Your task to perform on an android device: turn on notifications settings in the gmail app Image 0: 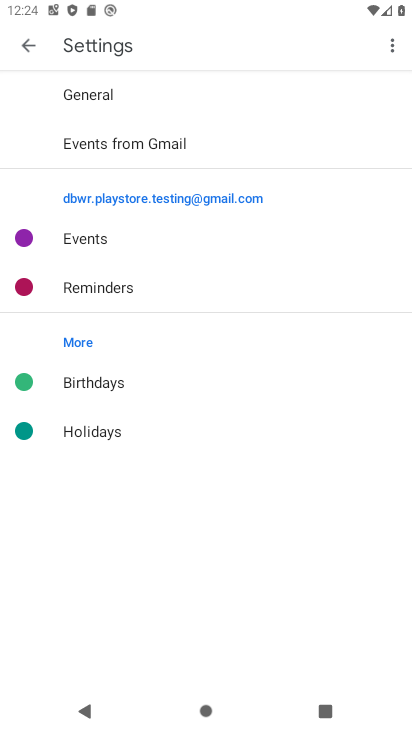
Step 0: press back button
Your task to perform on an android device: turn on notifications settings in the gmail app Image 1: 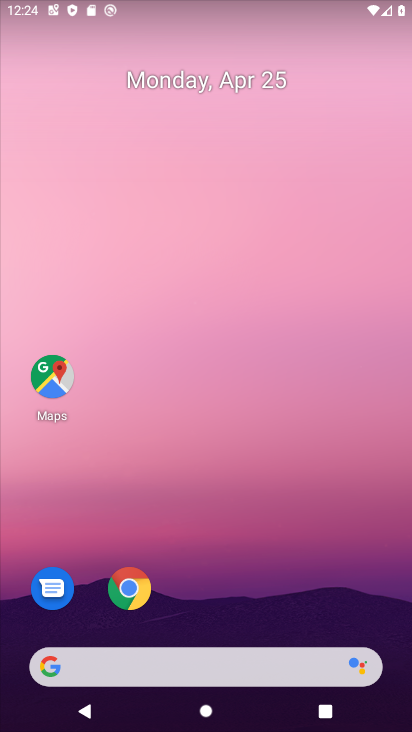
Step 1: drag from (194, 649) to (303, 101)
Your task to perform on an android device: turn on notifications settings in the gmail app Image 2: 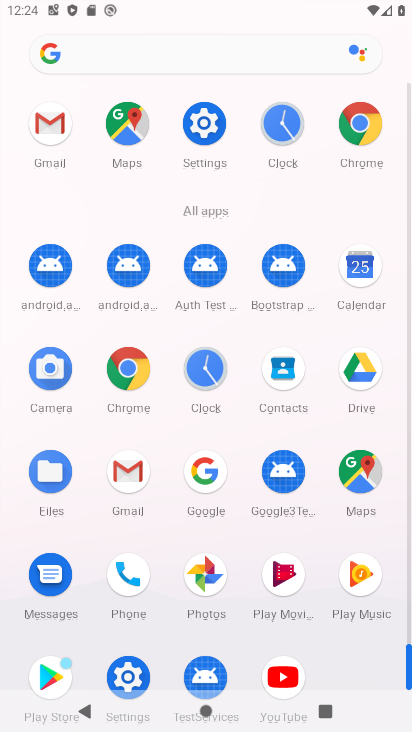
Step 2: click (132, 478)
Your task to perform on an android device: turn on notifications settings in the gmail app Image 3: 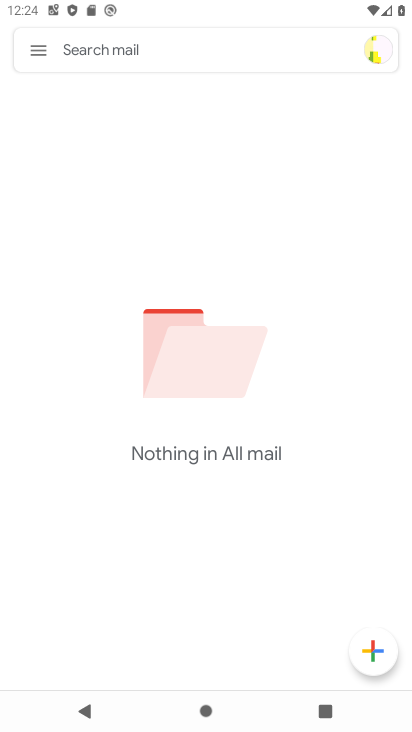
Step 3: click (30, 58)
Your task to perform on an android device: turn on notifications settings in the gmail app Image 4: 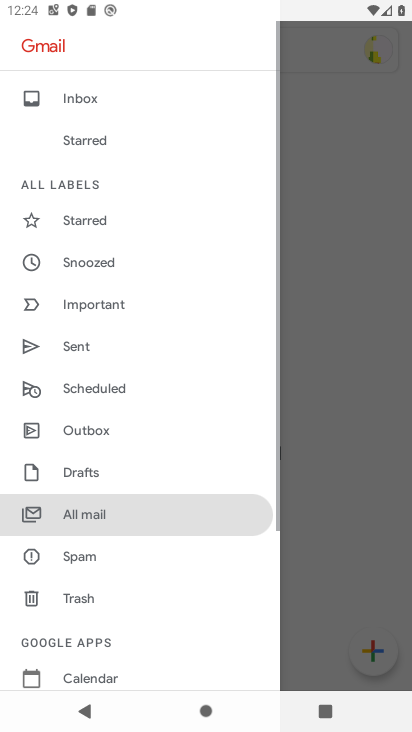
Step 4: drag from (59, 576) to (254, 5)
Your task to perform on an android device: turn on notifications settings in the gmail app Image 5: 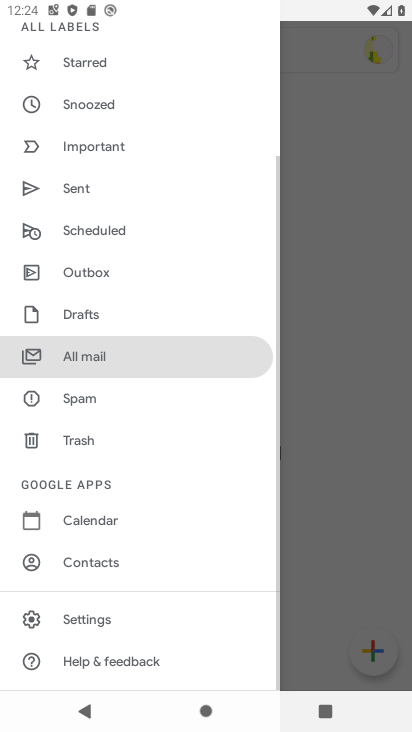
Step 5: click (114, 622)
Your task to perform on an android device: turn on notifications settings in the gmail app Image 6: 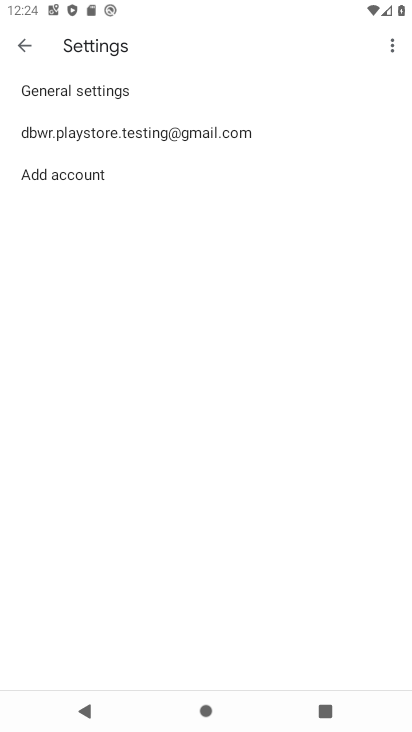
Step 6: click (206, 137)
Your task to perform on an android device: turn on notifications settings in the gmail app Image 7: 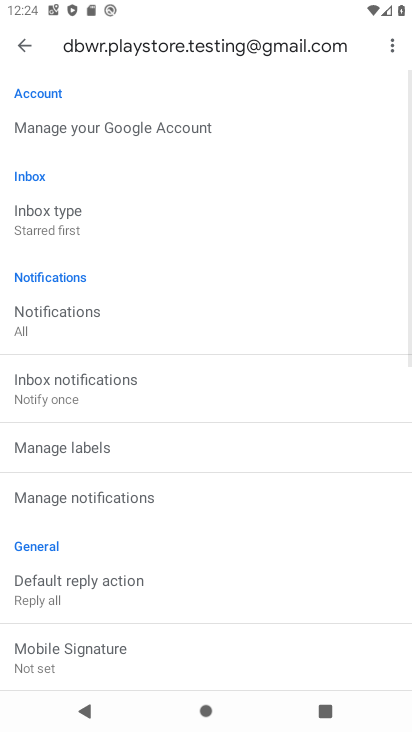
Step 7: click (149, 507)
Your task to perform on an android device: turn on notifications settings in the gmail app Image 8: 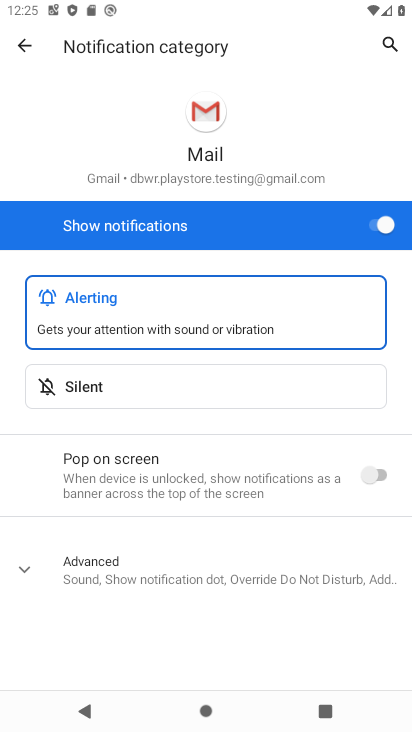
Step 8: task complete